Your task to perform on an android device: Open settings on Google Maps Image 0: 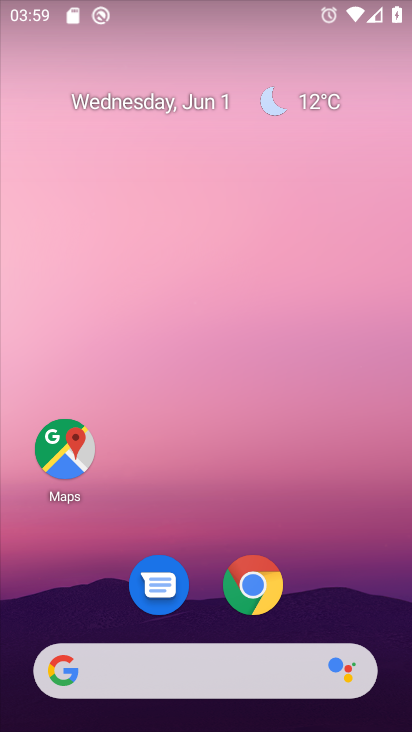
Step 0: click (69, 449)
Your task to perform on an android device: Open settings on Google Maps Image 1: 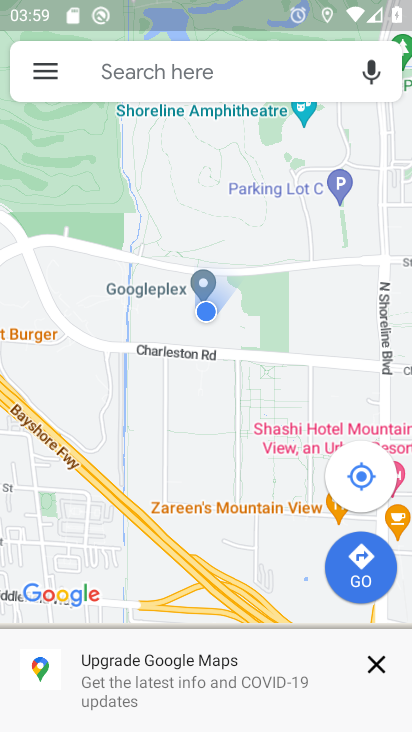
Step 1: click (50, 66)
Your task to perform on an android device: Open settings on Google Maps Image 2: 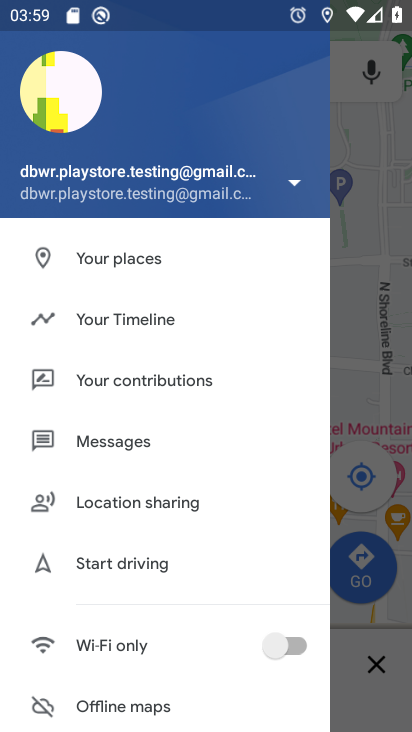
Step 2: drag from (161, 590) to (231, 0)
Your task to perform on an android device: Open settings on Google Maps Image 3: 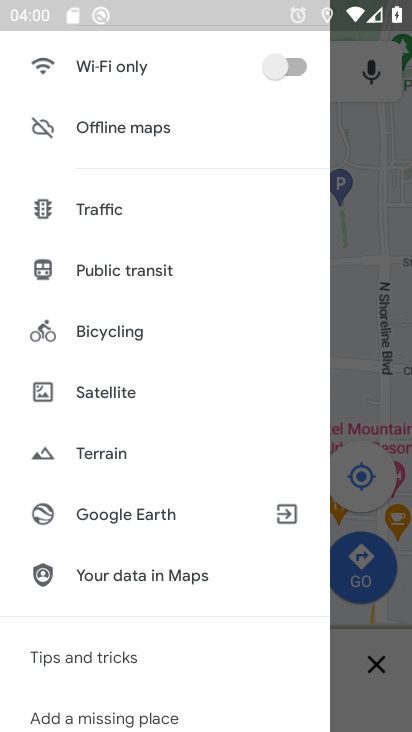
Step 3: drag from (159, 521) to (191, 60)
Your task to perform on an android device: Open settings on Google Maps Image 4: 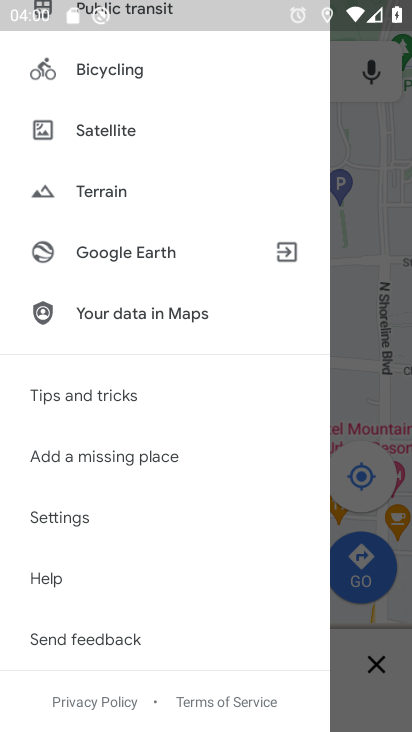
Step 4: click (64, 509)
Your task to perform on an android device: Open settings on Google Maps Image 5: 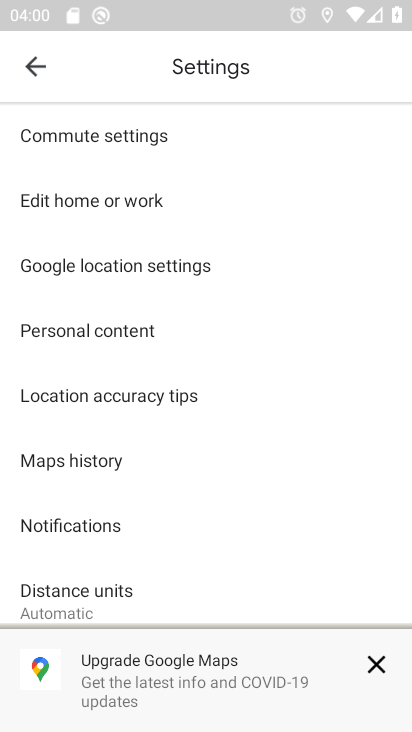
Step 5: task complete